Your task to perform on an android device: Clear the cart on ebay.com. Search for "macbook pro" on ebay.com, select the first entry, add it to the cart, then select checkout. Image 0: 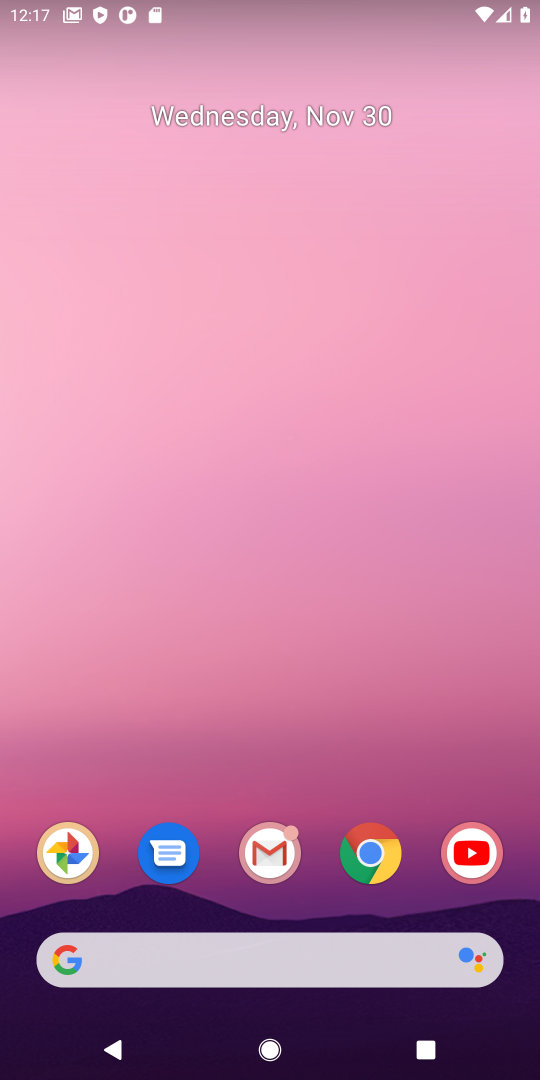
Step 0: click (370, 858)
Your task to perform on an android device: Clear the cart on ebay.com. Search for "macbook pro" on ebay.com, select the first entry, add it to the cart, then select checkout. Image 1: 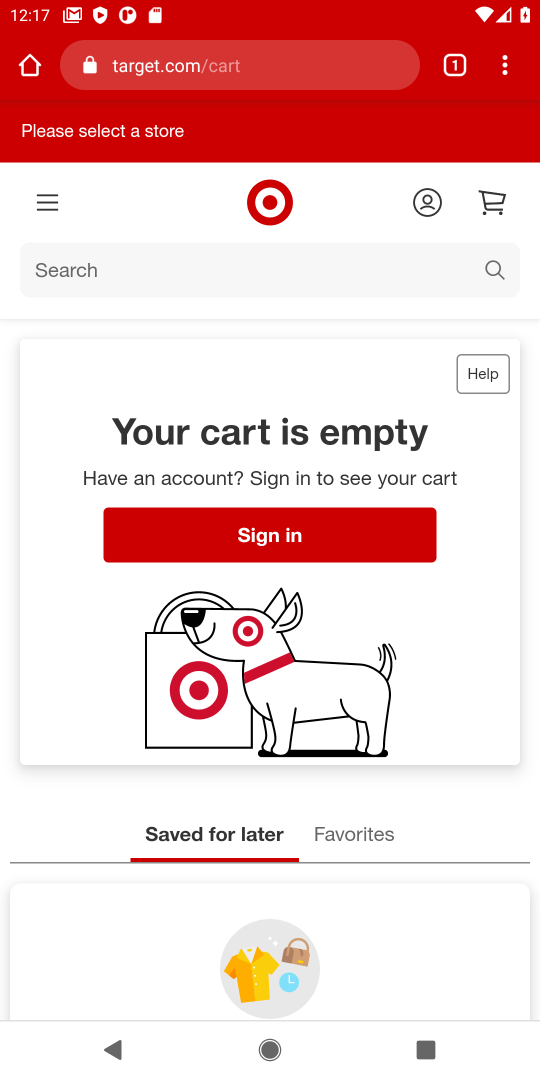
Step 1: click (219, 66)
Your task to perform on an android device: Clear the cart on ebay.com. Search for "macbook pro" on ebay.com, select the first entry, add it to the cart, then select checkout. Image 2: 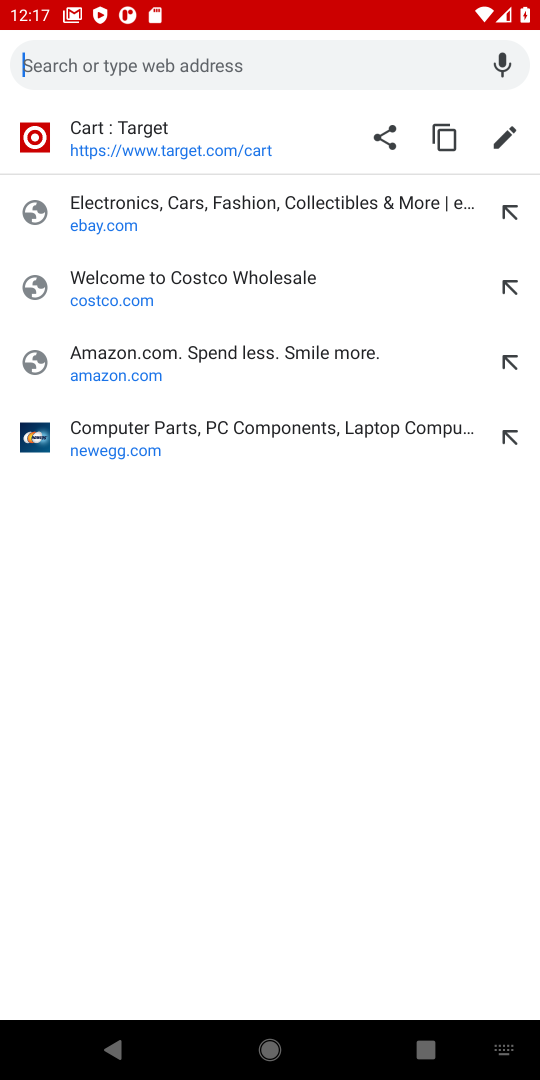
Step 2: click (89, 219)
Your task to perform on an android device: Clear the cart on ebay.com. Search for "macbook pro" on ebay.com, select the first entry, add it to the cart, then select checkout. Image 3: 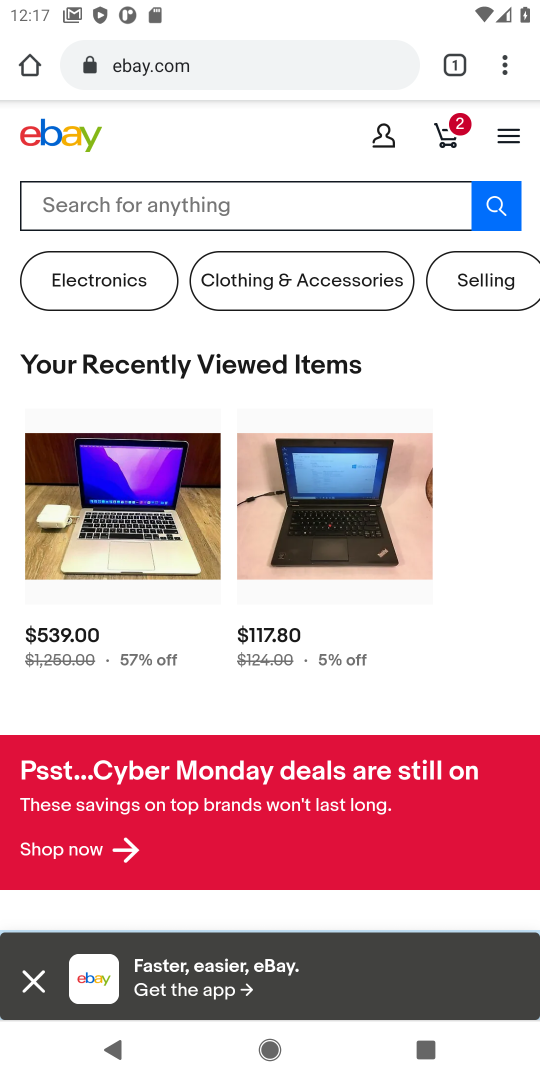
Step 3: click (448, 138)
Your task to perform on an android device: Clear the cart on ebay.com. Search for "macbook pro" on ebay.com, select the first entry, add it to the cart, then select checkout. Image 4: 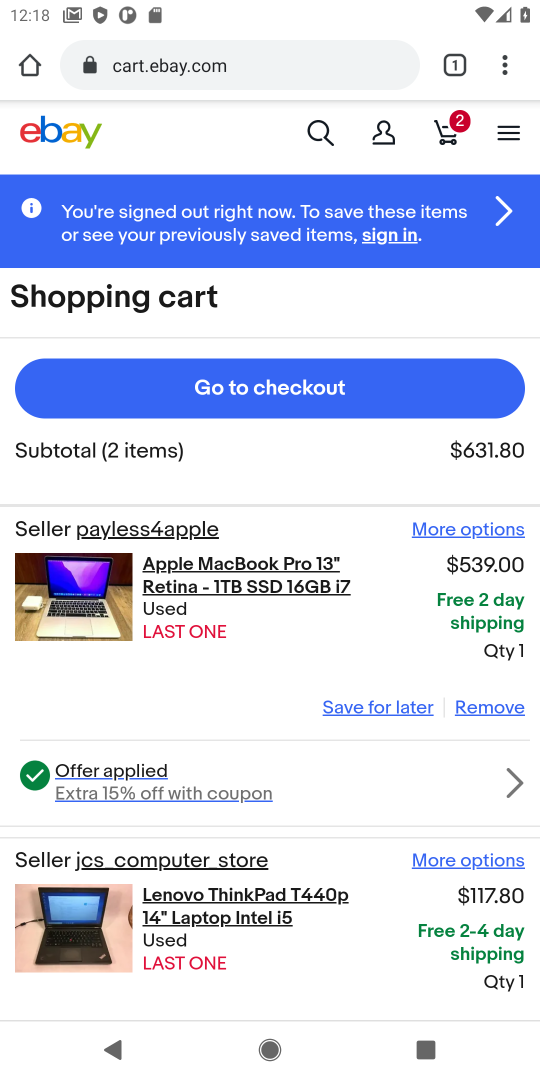
Step 4: click (480, 698)
Your task to perform on an android device: Clear the cart on ebay.com. Search for "macbook pro" on ebay.com, select the first entry, add it to the cart, then select checkout. Image 5: 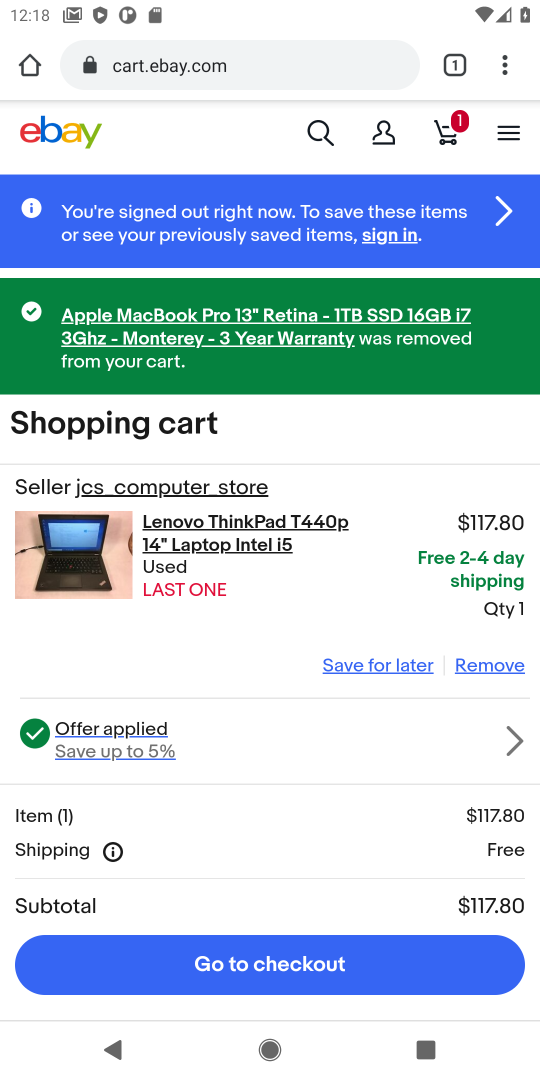
Step 5: click (494, 664)
Your task to perform on an android device: Clear the cart on ebay.com. Search for "macbook pro" on ebay.com, select the first entry, add it to the cart, then select checkout. Image 6: 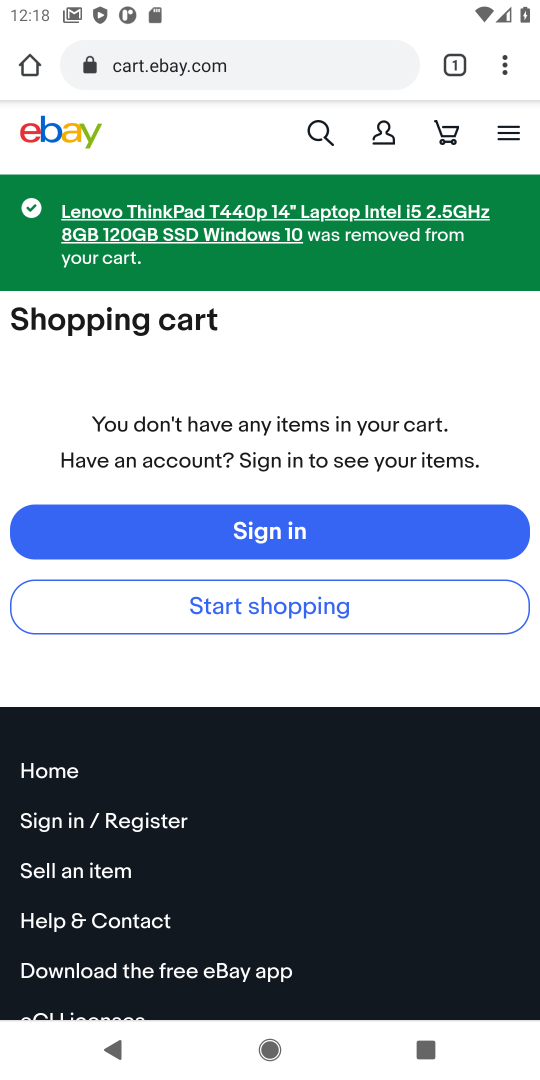
Step 6: click (324, 135)
Your task to perform on an android device: Clear the cart on ebay.com. Search for "macbook pro" on ebay.com, select the first entry, add it to the cart, then select checkout. Image 7: 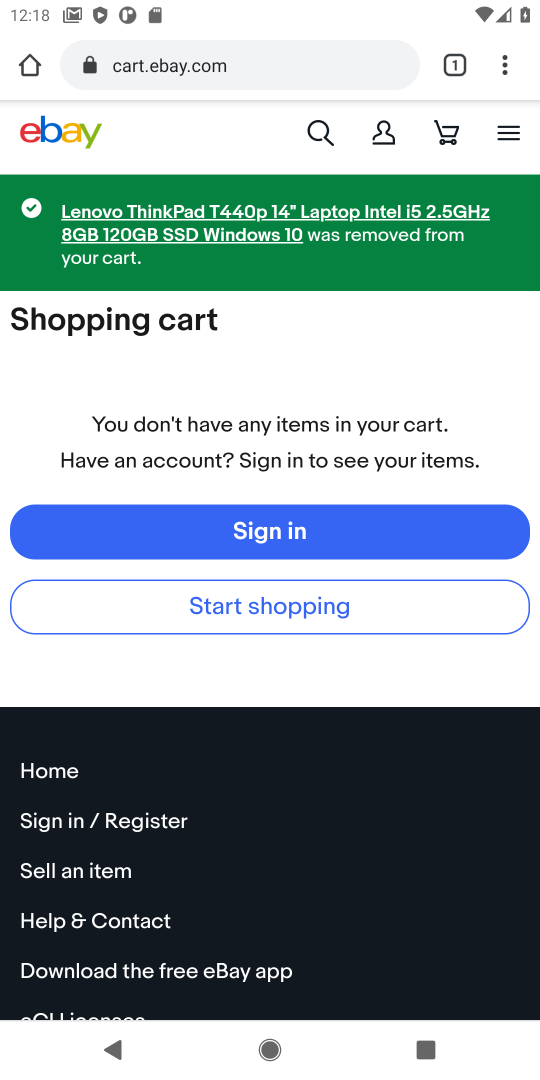
Step 7: click (327, 130)
Your task to perform on an android device: Clear the cart on ebay.com. Search for "macbook pro" on ebay.com, select the first entry, add it to the cart, then select checkout. Image 8: 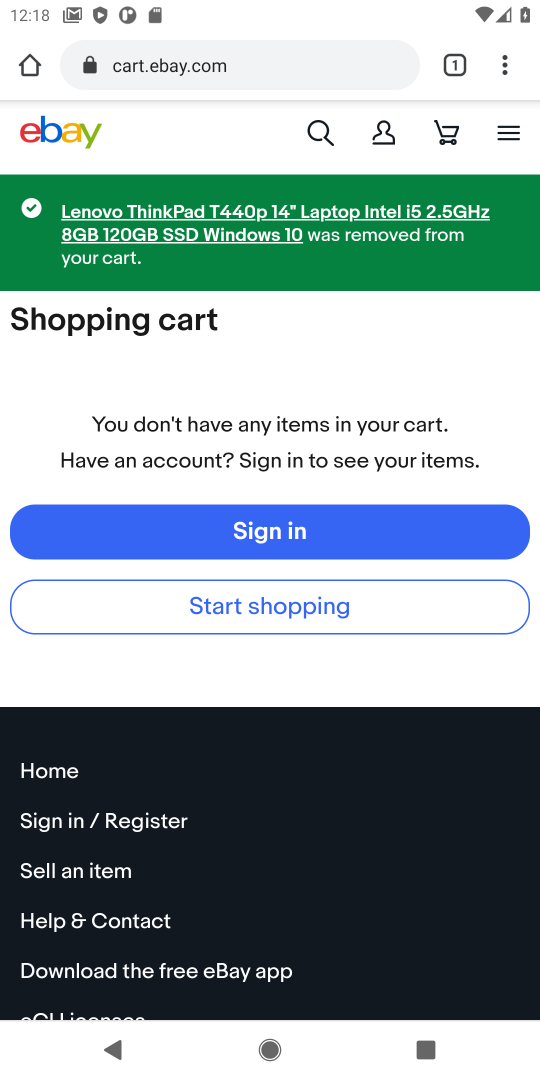
Step 8: click (322, 130)
Your task to perform on an android device: Clear the cart on ebay.com. Search for "macbook pro" on ebay.com, select the first entry, add it to the cart, then select checkout. Image 9: 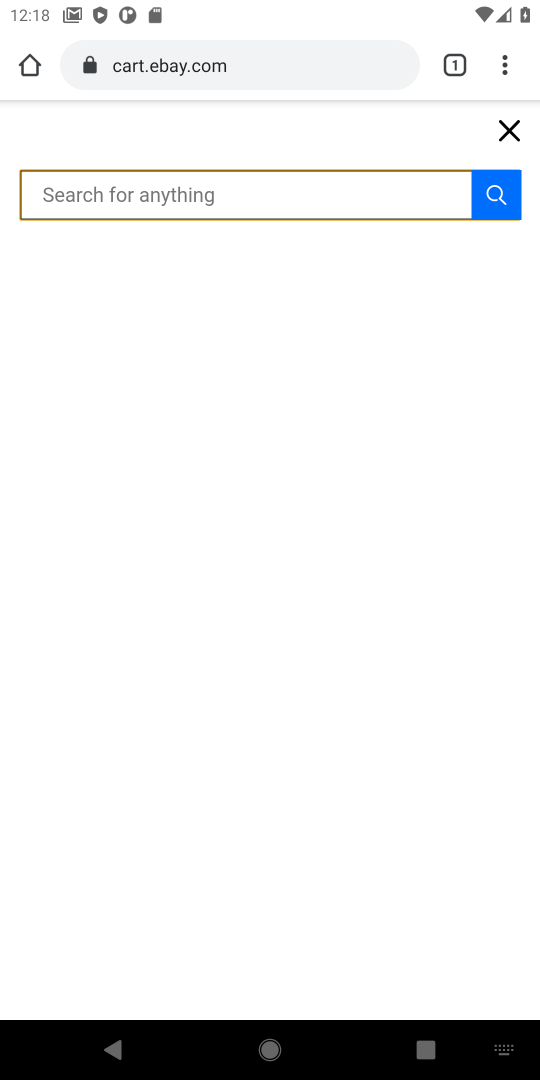
Step 9: type "macbook pro"
Your task to perform on an android device: Clear the cart on ebay.com. Search for "macbook pro" on ebay.com, select the first entry, add it to the cart, then select checkout. Image 10: 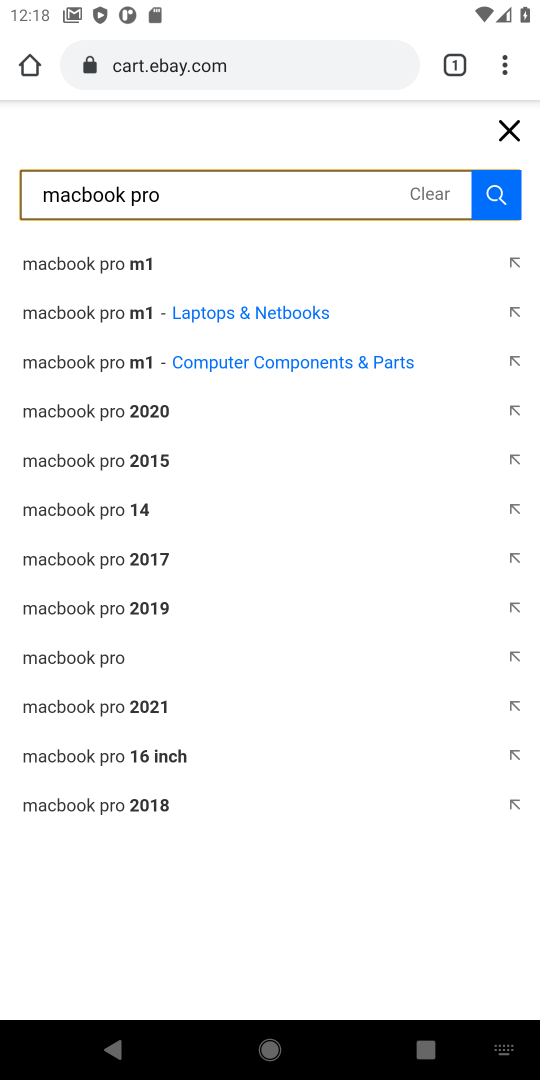
Step 10: click (102, 658)
Your task to perform on an android device: Clear the cart on ebay.com. Search for "macbook pro" on ebay.com, select the first entry, add it to the cart, then select checkout. Image 11: 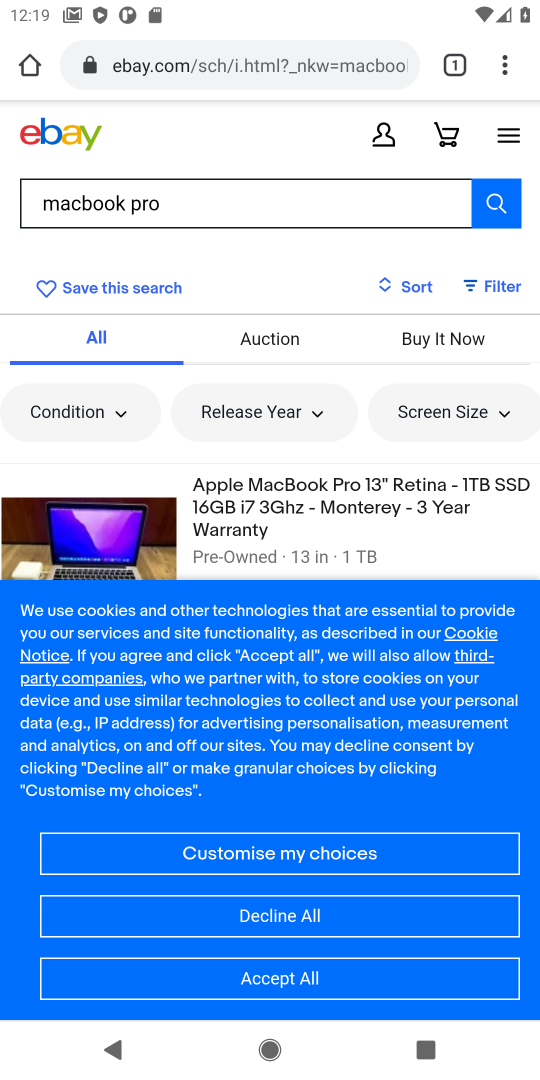
Step 11: click (244, 983)
Your task to perform on an android device: Clear the cart on ebay.com. Search for "macbook pro" on ebay.com, select the first entry, add it to the cart, then select checkout. Image 12: 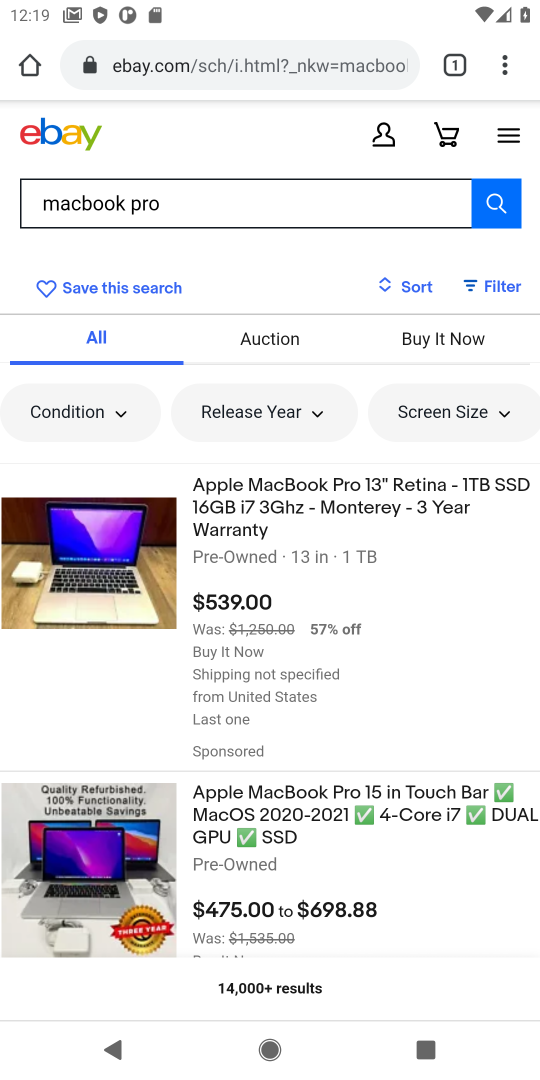
Step 12: click (231, 515)
Your task to perform on an android device: Clear the cart on ebay.com. Search for "macbook pro" on ebay.com, select the first entry, add it to the cart, then select checkout. Image 13: 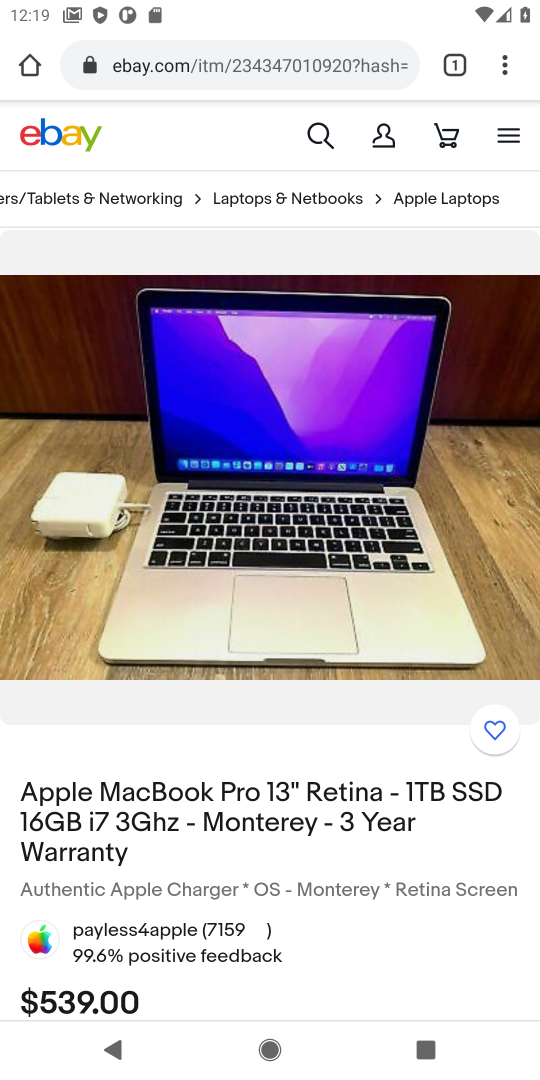
Step 13: drag from (314, 722) to (297, 402)
Your task to perform on an android device: Clear the cart on ebay.com. Search for "macbook pro" on ebay.com, select the first entry, add it to the cart, then select checkout. Image 14: 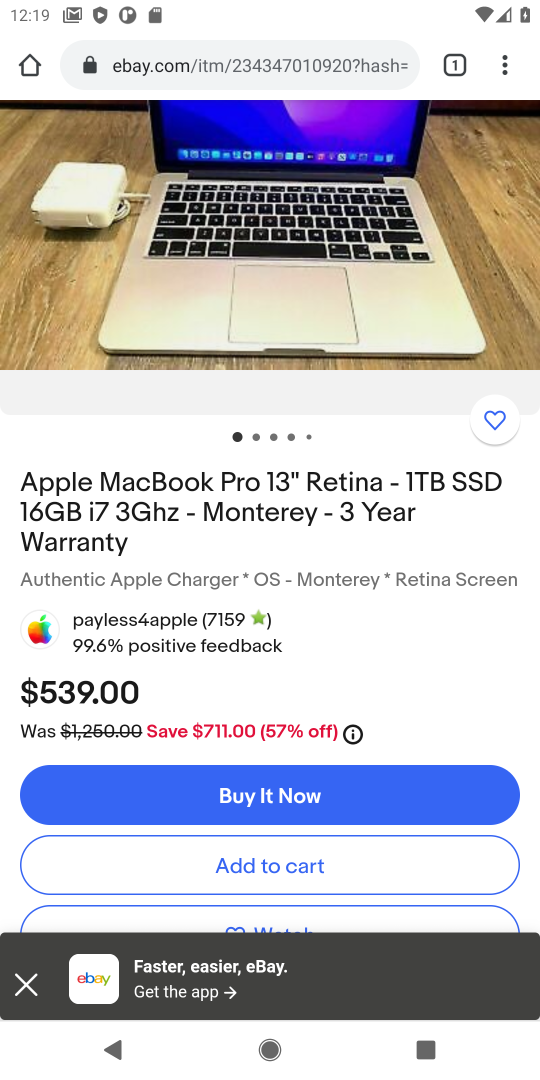
Step 14: click (268, 865)
Your task to perform on an android device: Clear the cart on ebay.com. Search for "macbook pro" on ebay.com, select the first entry, add it to the cart, then select checkout. Image 15: 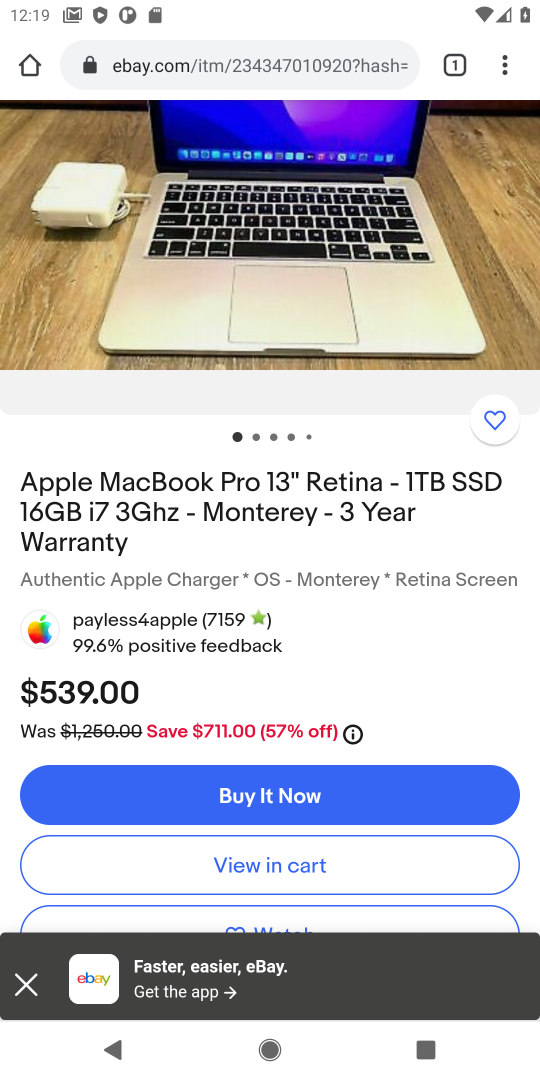
Step 15: click (268, 865)
Your task to perform on an android device: Clear the cart on ebay.com. Search for "macbook pro" on ebay.com, select the first entry, add it to the cart, then select checkout. Image 16: 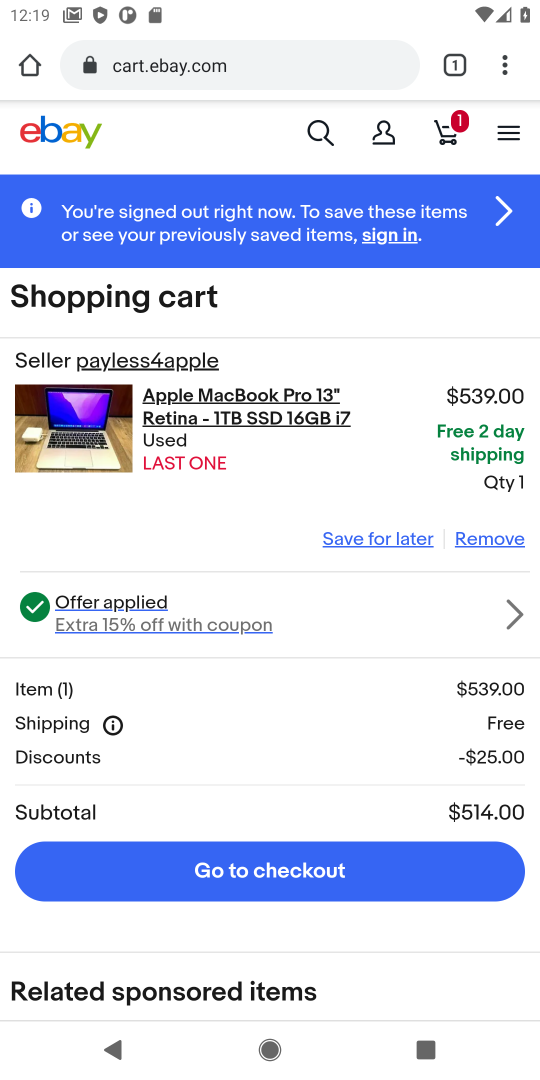
Step 16: click (266, 867)
Your task to perform on an android device: Clear the cart on ebay.com. Search for "macbook pro" on ebay.com, select the first entry, add it to the cart, then select checkout. Image 17: 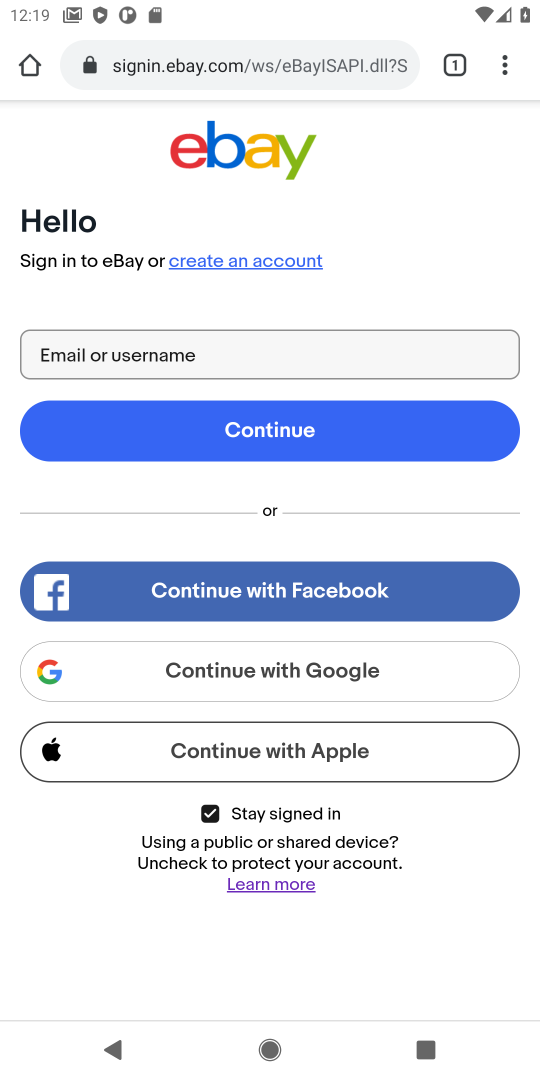
Step 17: task complete